Your task to perform on an android device: turn off javascript in the chrome app Image 0: 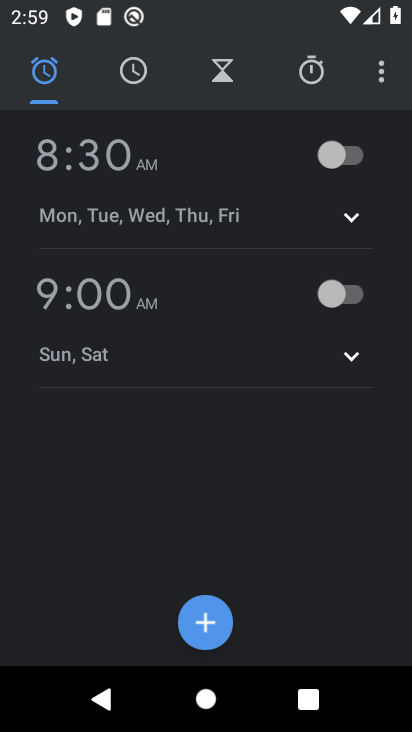
Step 0: press home button
Your task to perform on an android device: turn off javascript in the chrome app Image 1: 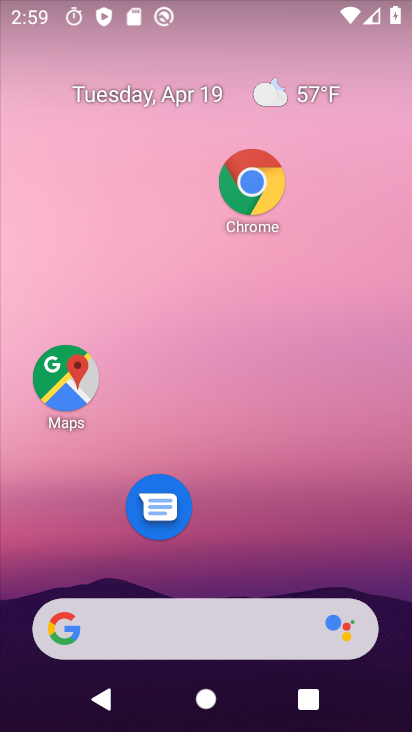
Step 1: drag from (255, 642) to (198, 120)
Your task to perform on an android device: turn off javascript in the chrome app Image 2: 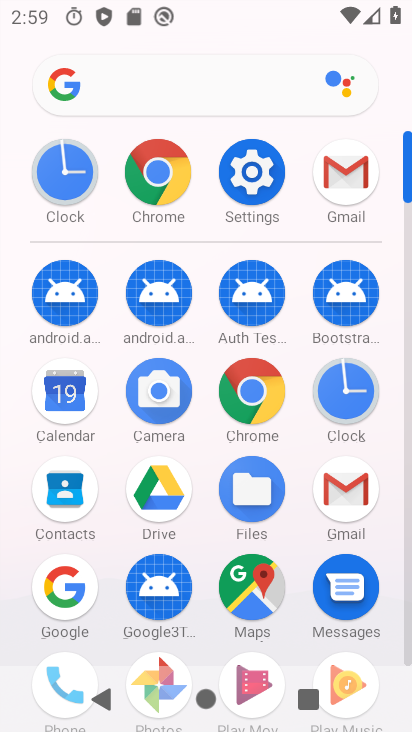
Step 2: click (177, 193)
Your task to perform on an android device: turn off javascript in the chrome app Image 3: 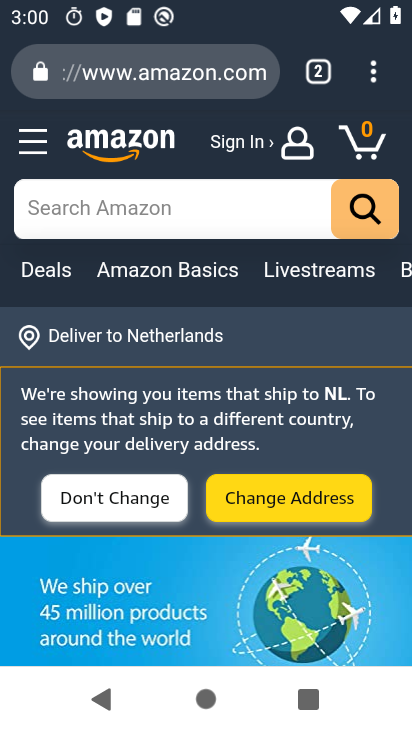
Step 3: click (369, 69)
Your task to perform on an android device: turn off javascript in the chrome app Image 4: 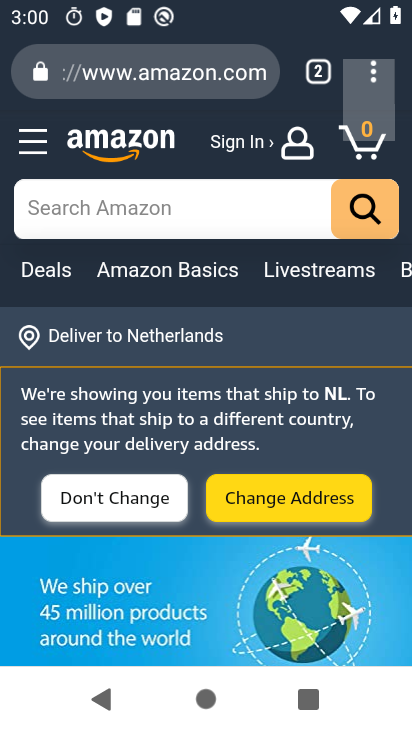
Step 4: click (374, 65)
Your task to perform on an android device: turn off javascript in the chrome app Image 5: 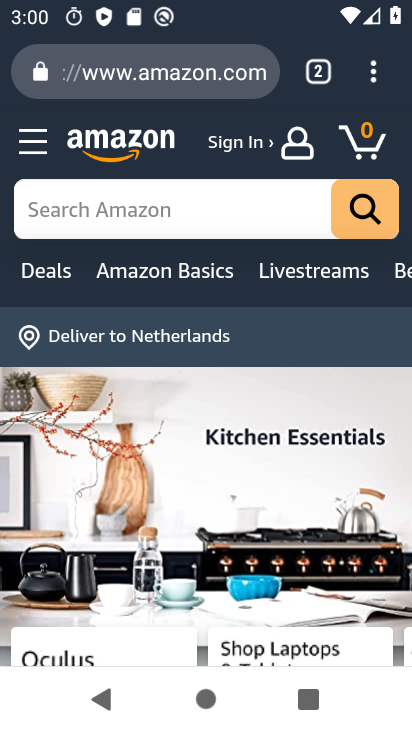
Step 5: click (385, 77)
Your task to perform on an android device: turn off javascript in the chrome app Image 6: 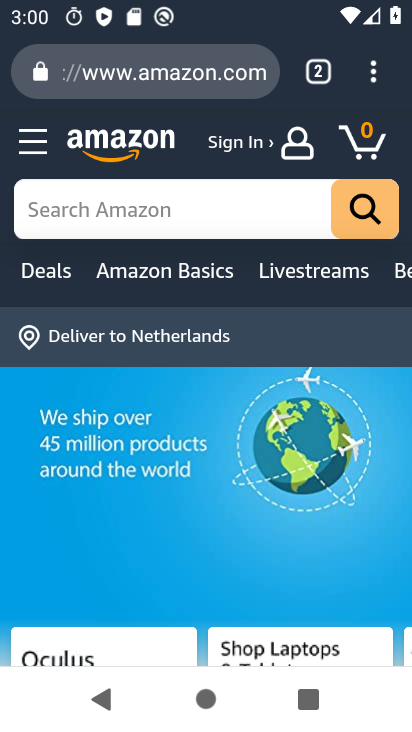
Step 6: click (380, 76)
Your task to perform on an android device: turn off javascript in the chrome app Image 7: 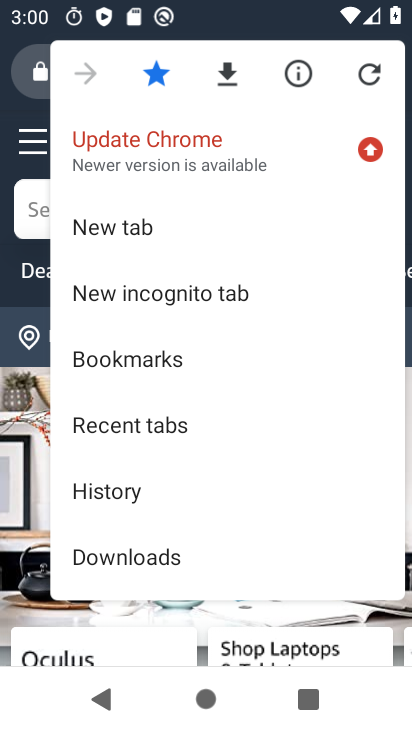
Step 7: drag from (277, 464) to (260, 186)
Your task to perform on an android device: turn off javascript in the chrome app Image 8: 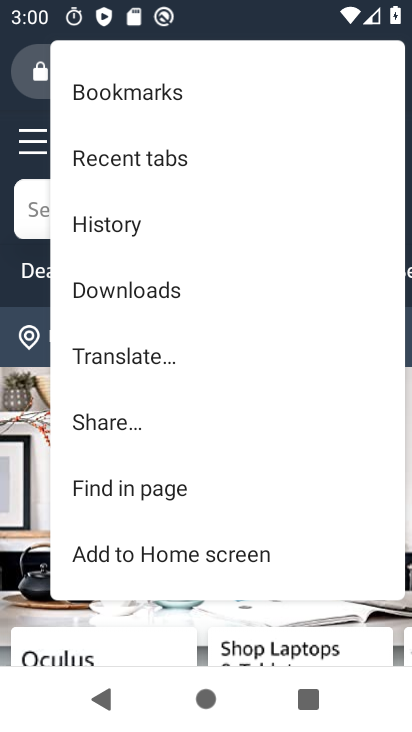
Step 8: drag from (207, 480) to (203, 179)
Your task to perform on an android device: turn off javascript in the chrome app Image 9: 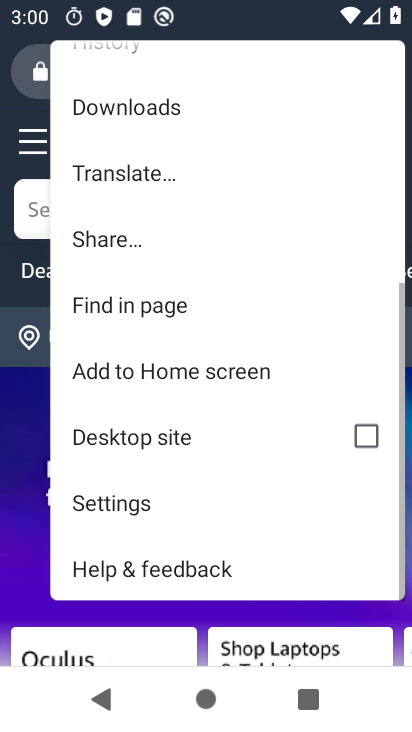
Step 9: click (241, 502)
Your task to perform on an android device: turn off javascript in the chrome app Image 10: 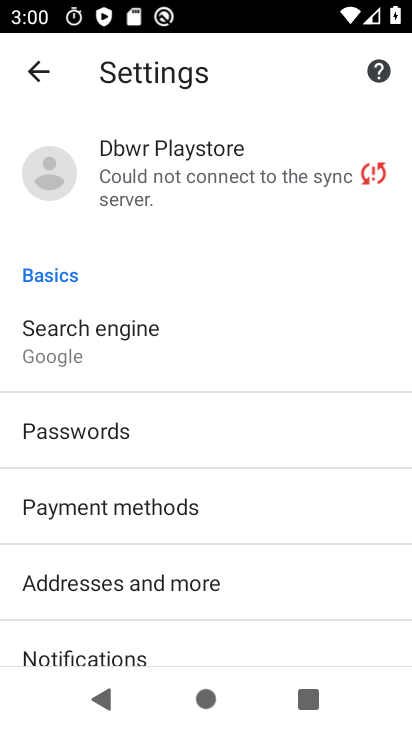
Step 10: drag from (217, 556) to (265, 74)
Your task to perform on an android device: turn off javascript in the chrome app Image 11: 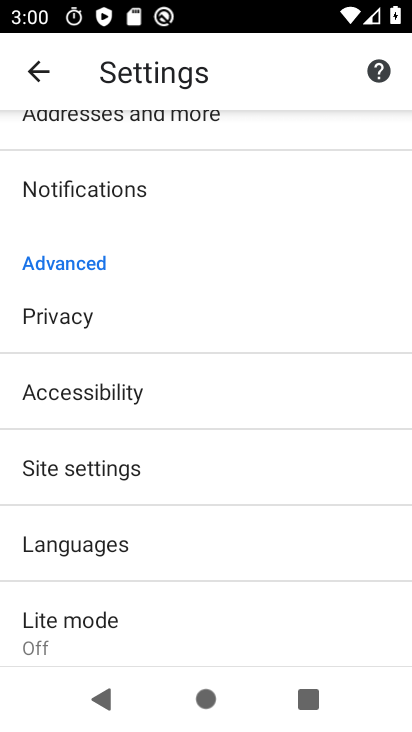
Step 11: click (183, 475)
Your task to perform on an android device: turn off javascript in the chrome app Image 12: 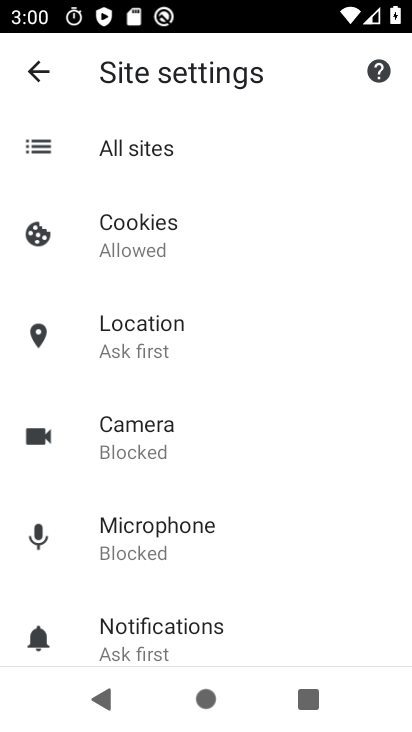
Step 12: drag from (189, 581) to (274, 155)
Your task to perform on an android device: turn off javascript in the chrome app Image 13: 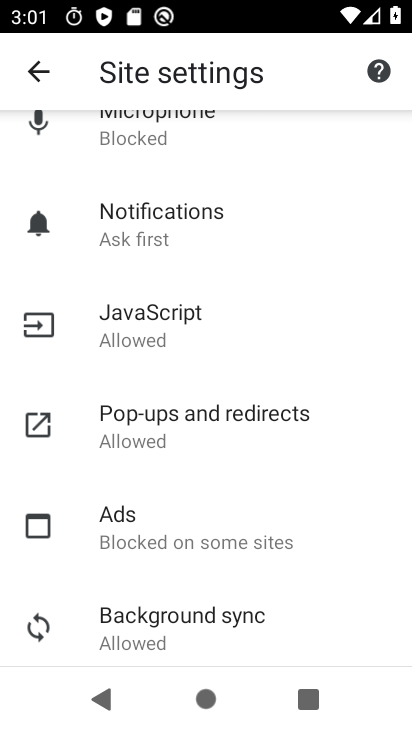
Step 13: click (259, 335)
Your task to perform on an android device: turn off javascript in the chrome app Image 14: 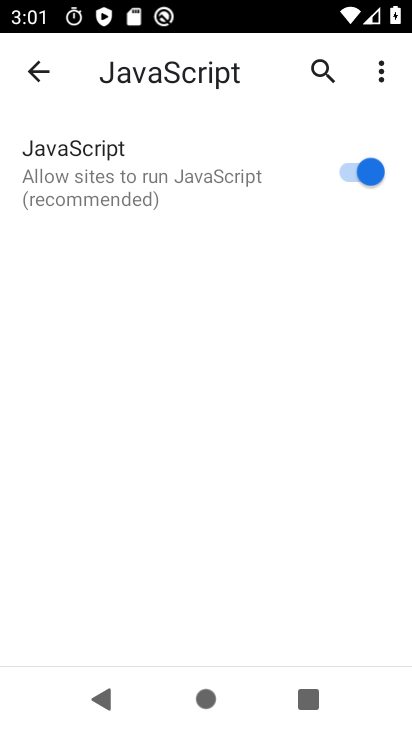
Step 14: click (362, 174)
Your task to perform on an android device: turn off javascript in the chrome app Image 15: 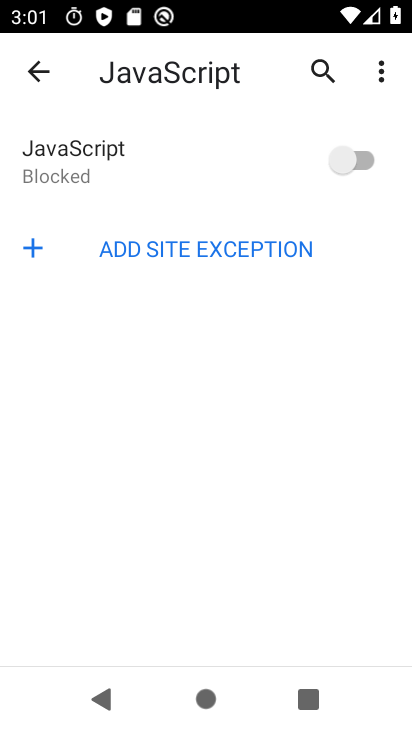
Step 15: task complete